Your task to perform on an android device: turn on priority inbox in the gmail app Image 0: 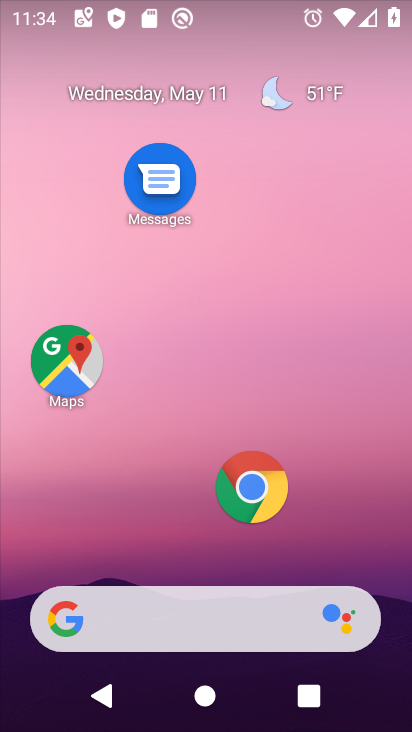
Step 0: drag from (197, 557) to (238, 220)
Your task to perform on an android device: turn on priority inbox in the gmail app Image 1: 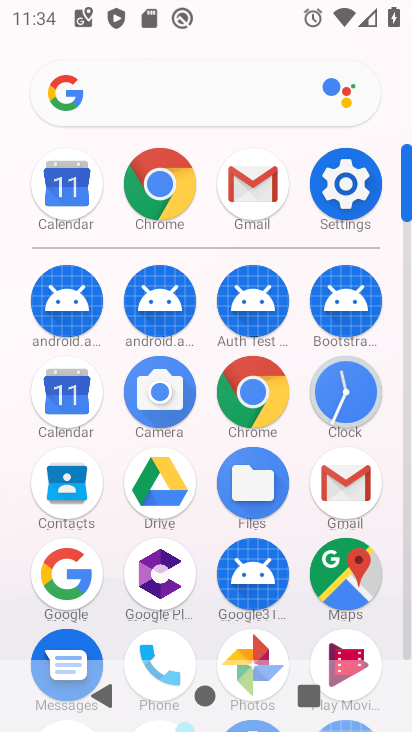
Step 1: click (243, 206)
Your task to perform on an android device: turn on priority inbox in the gmail app Image 2: 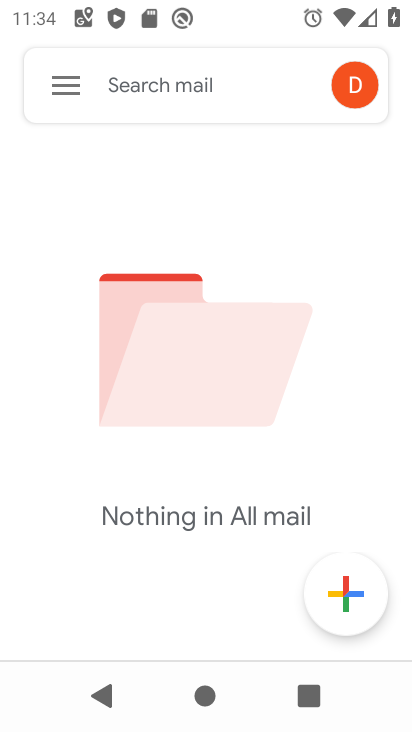
Step 2: click (69, 77)
Your task to perform on an android device: turn on priority inbox in the gmail app Image 3: 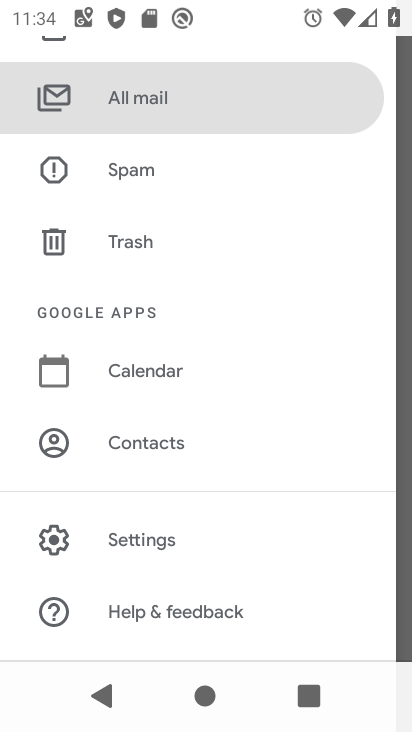
Step 3: click (164, 543)
Your task to perform on an android device: turn on priority inbox in the gmail app Image 4: 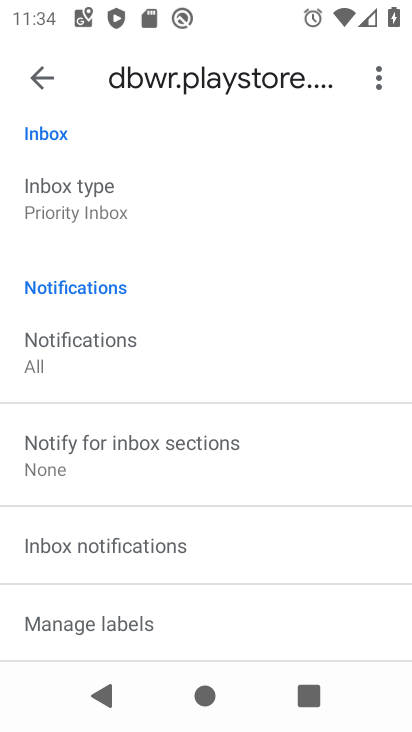
Step 4: click (179, 199)
Your task to perform on an android device: turn on priority inbox in the gmail app Image 5: 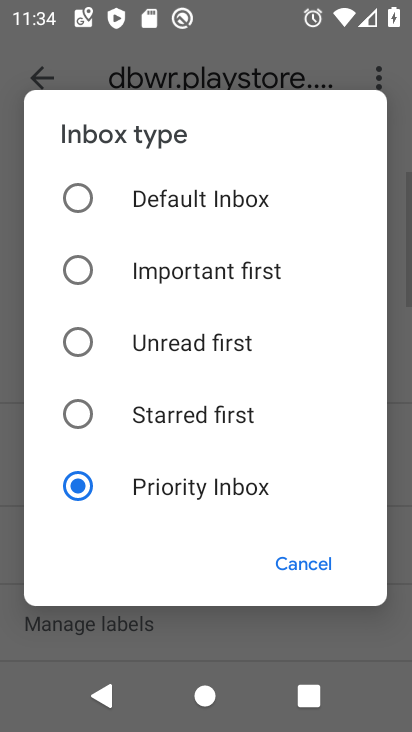
Step 5: task complete